Your task to perform on an android device: Search for seafood restaurants on Google Maps Image 0: 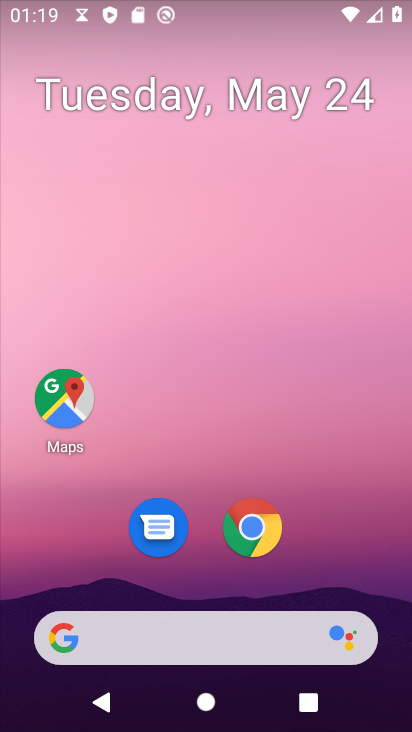
Step 0: press home button
Your task to perform on an android device: Search for seafood restaurants on Google Maps Image 1: 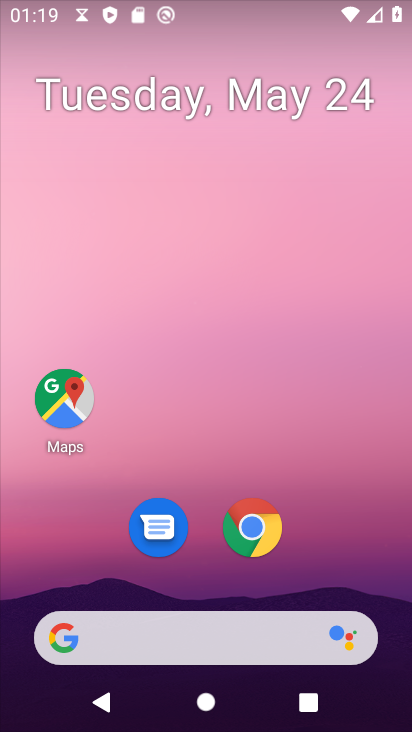
Step 1: click (61, 405)
Your task to perform on an android device: Search for seafood restaurants on Google Maps Image 2: 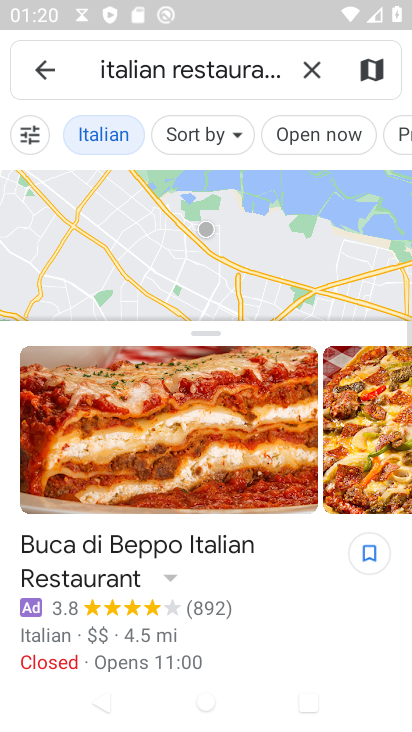
Step 2: click (316, 68)
Your task to perform on an android device: Search for seafood restaurants on Google Maps Image 3: 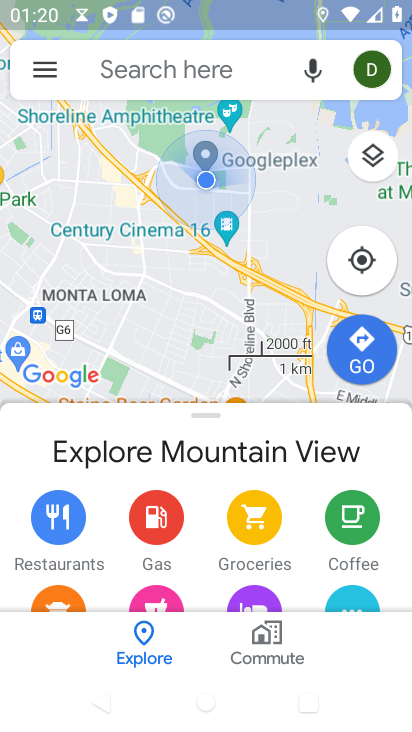
Step 3: click (203, 66)
Your task to perform on an android device: Search for seafood restaurants on Google Maps Image 4: 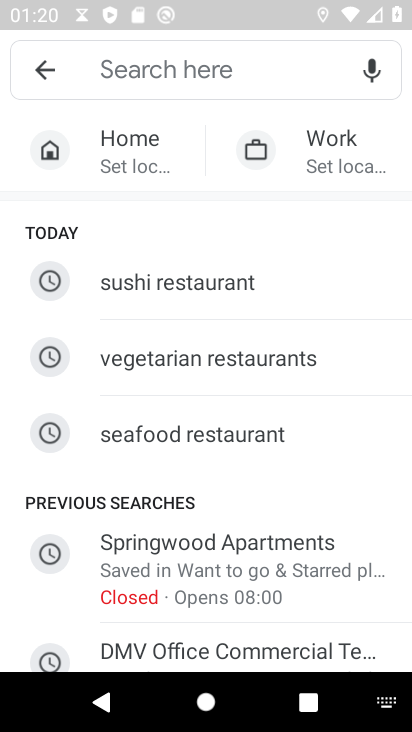
Step 4: click (151, 435)
Your task to perform on an android device: Search for seafood restaurants on Google Maps Image 5: 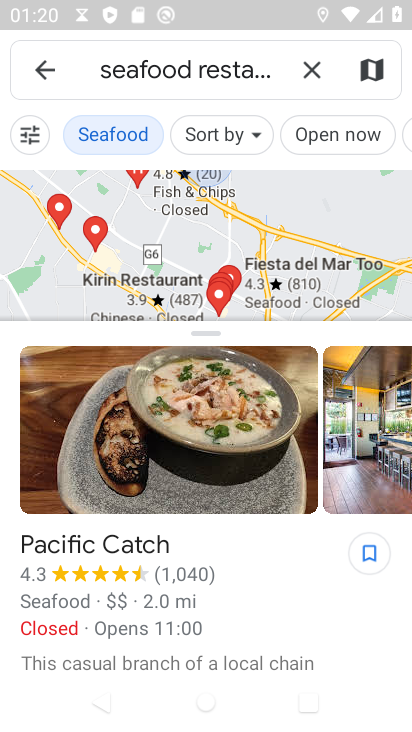
Step 5: task complete